Your task to perform on an android device: Search for seafood restaurants on Google Maps Image 0: 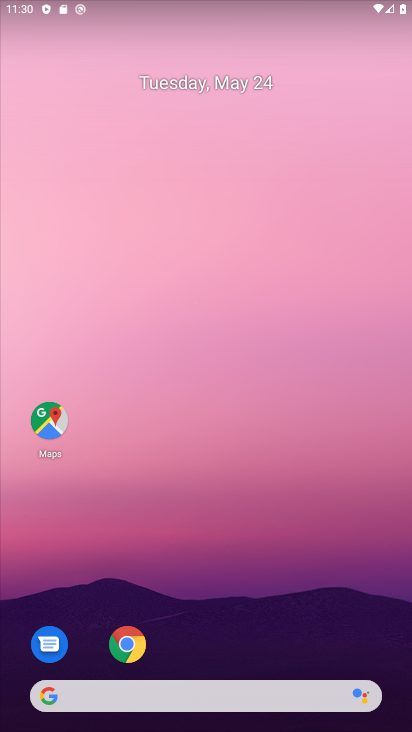
Step 0: click (54, 421)
Your task to perform on an android device: Search for seafood restaurants on Google Maps Image 1: 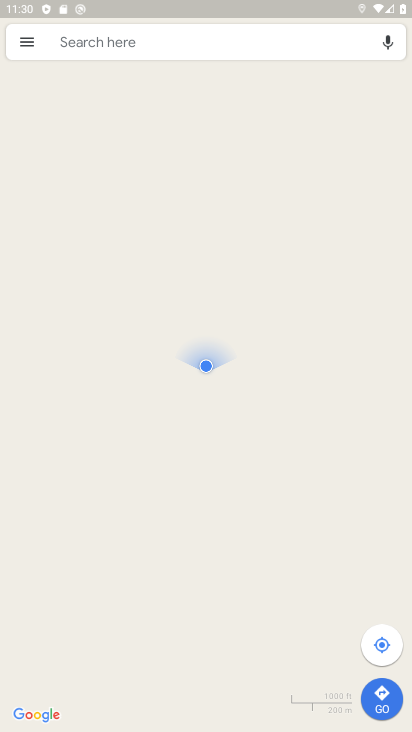
Step 1: click (129, 43)
Your task to perform on an android device: Search for seafood restaurants on Google Maps Image 2: 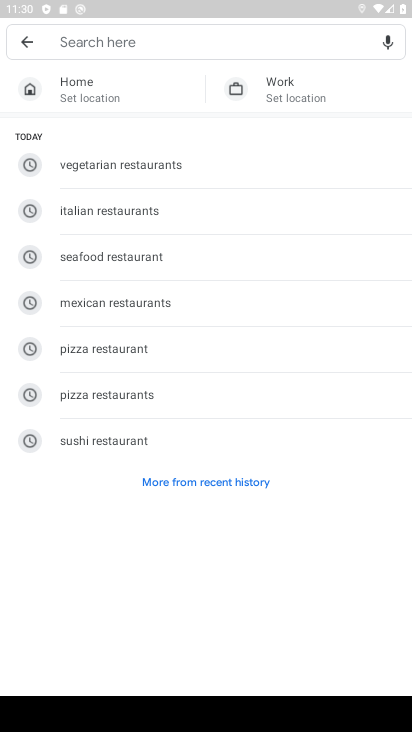
Step 2: type "seafood restaurants"
Your task to perform on an android device: Search for seafood restaurants on Google Maps Image 3: 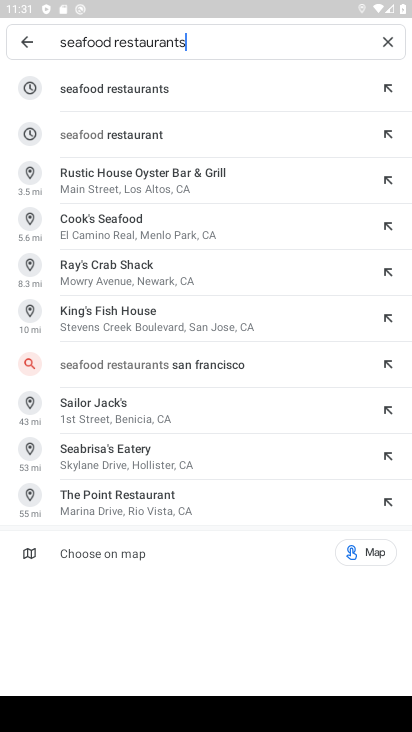
Step 3: click (221, 96)
Your task to perform on an android device: Search for seafood restaurants on Google Maps Image 4: 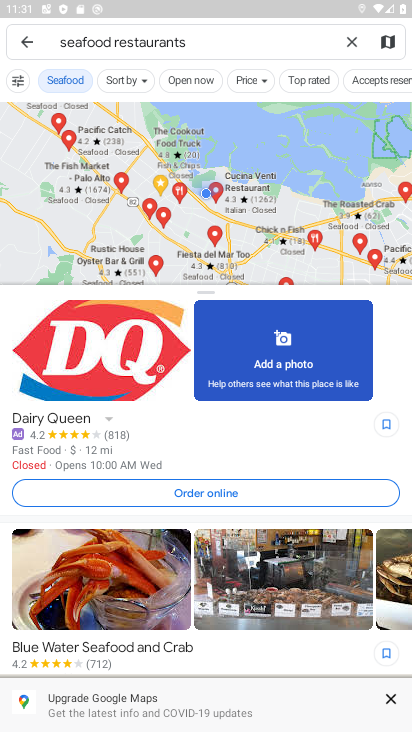
Step 4: task complete